Your task to perform on an android device: turn off smart reply in the gmail app Image 0: 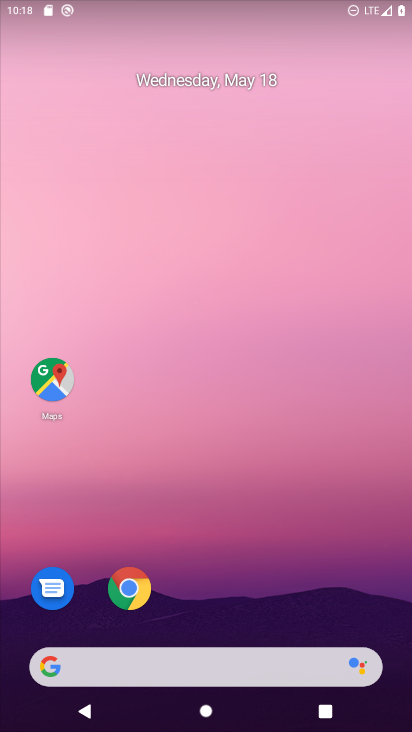
Step 0: drag from (371, 598) to (304, 9)
Your task to perform on an android device: turn off smart reply in the gmail app Image 1: 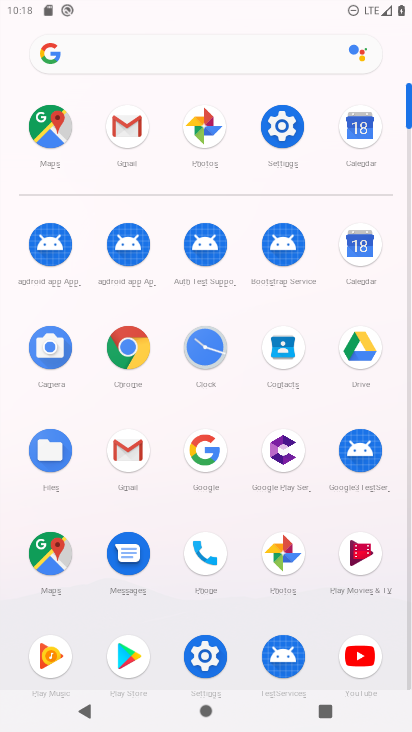
Step 1: click (129, 134)
Your task to perform on an android device: turn off smart reply in the gmail app Image 2: 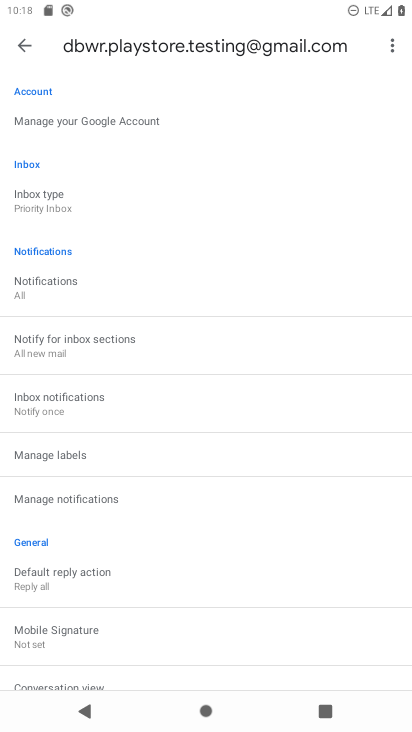
Step 2: drag from (181, 482) to (167, 195)
Your task to perform on an android device: turn off smart reply in the gmail app Image 3: 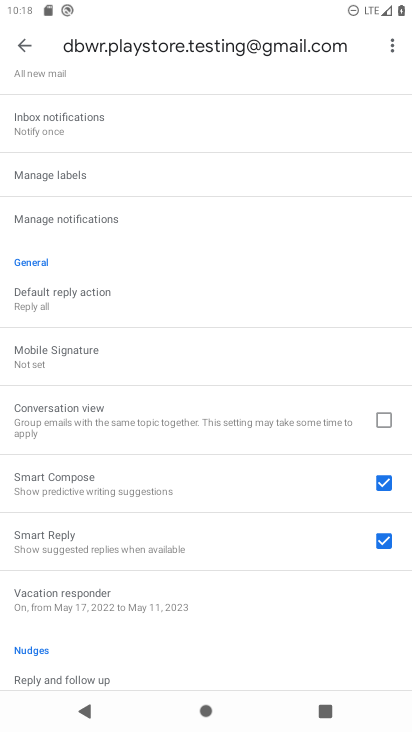
Step 3: click (387, 537)
Your task to perform on an android device: turn off smart reply in the gmail app Image 4: 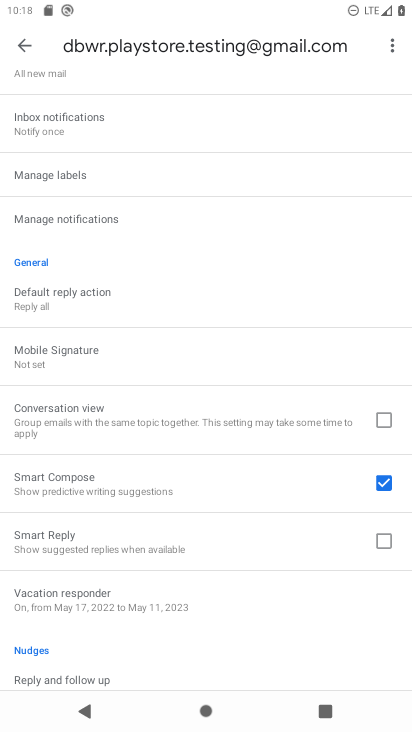
Step 4: task complete